Your task to perform on an android device: Go to Google Image 0: 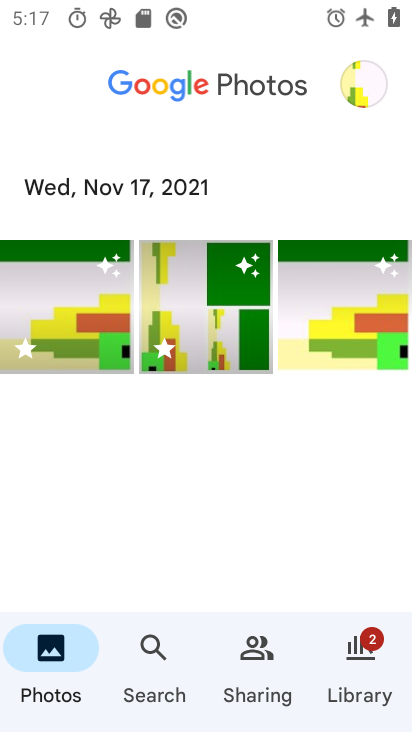
Step 0: press home button
Your task to perform on an android device: Go to Google Image 1: 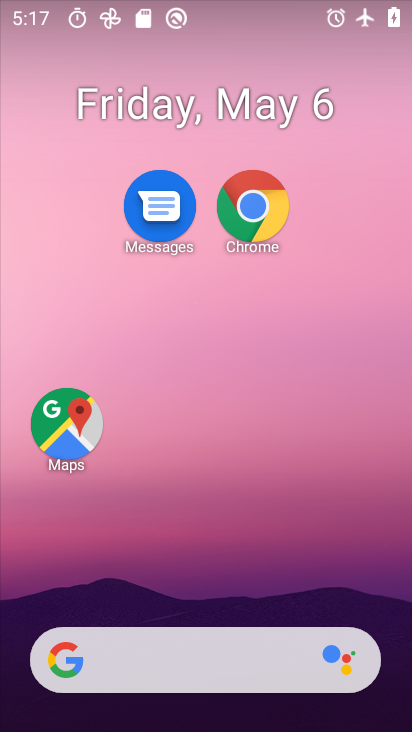
Step 1: drag from (170, 637) to (132, 304)
Your task to perform on an android device: Go to Google Image 2: 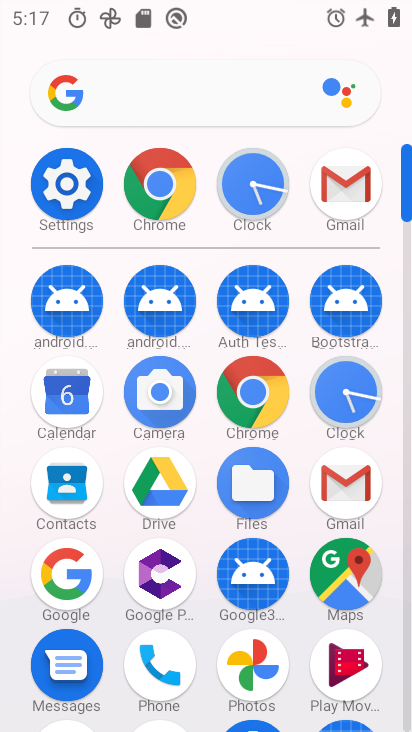
Step 2: click (49, 575)
Your task to perform on an android device: Go to Google Image 3: 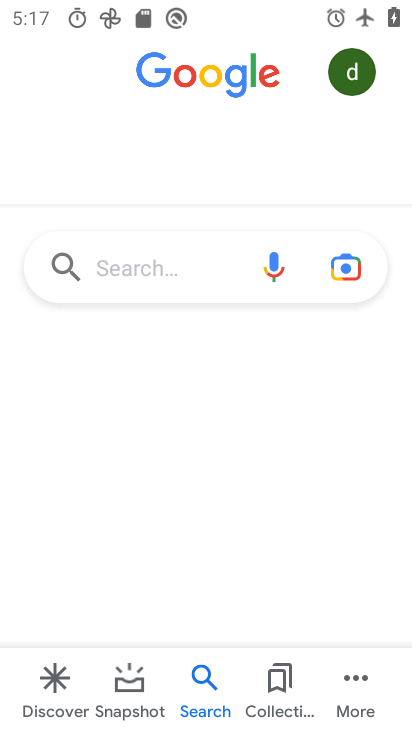
Step 3: task complete